Your task to perform on an android device: choose inbox layout in the gmail app Image 0: 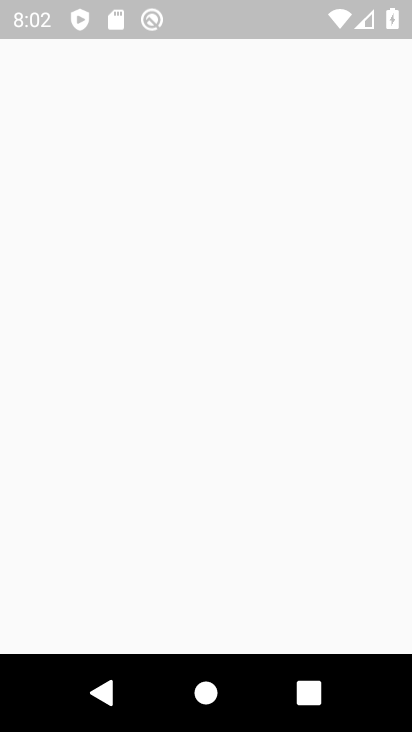
Step 0: drag from (229, 499) to (255, 108)
Your task to perform on an android device: choose inbox layout in the gmail app Image 1: 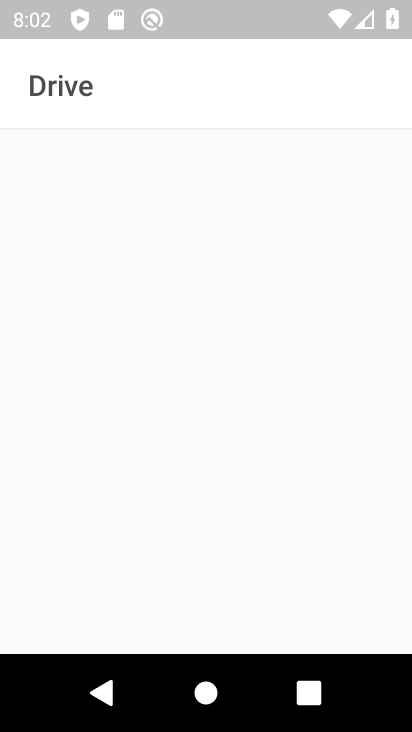
Step 1: press home button
Your task to perform on an android device: choose inbox layout in the gmail app Image 2: 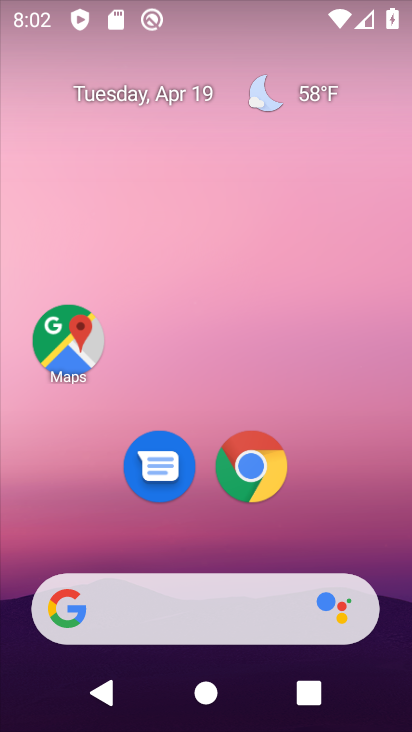
Step 2: drag from (289, 558) to (291, 67)
Your task to perform on an android device: choose inbox layout in the gmail app Image 3: 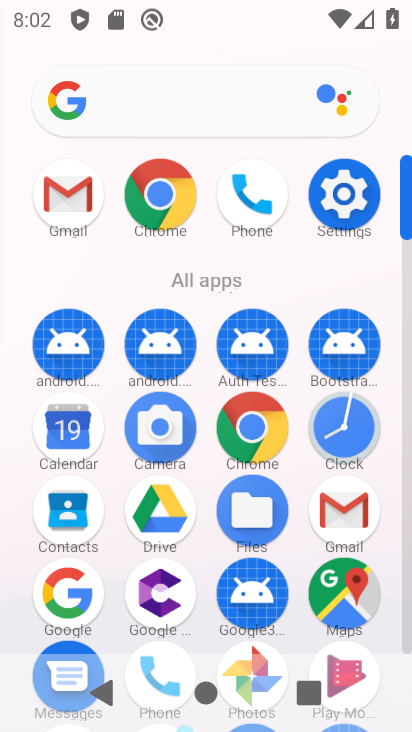
Step 3: click (58, 183)
Your task to perform on an android device: choose inbox layout in the gmail app Image 4: 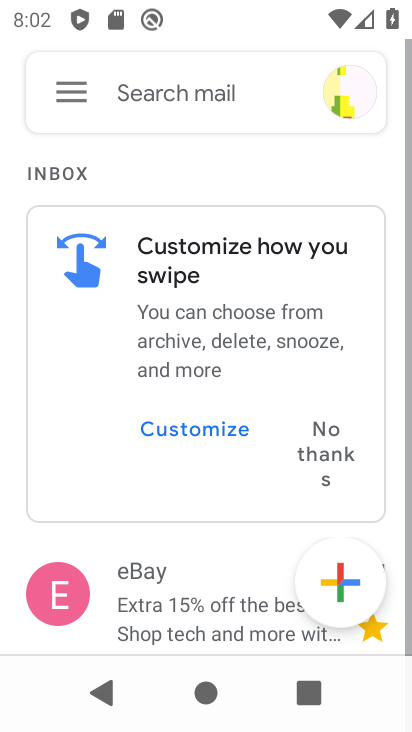
Step 4: click (52, 78)
Your task to perform on an android device: choose inbox layout in the gmail app Image 5: 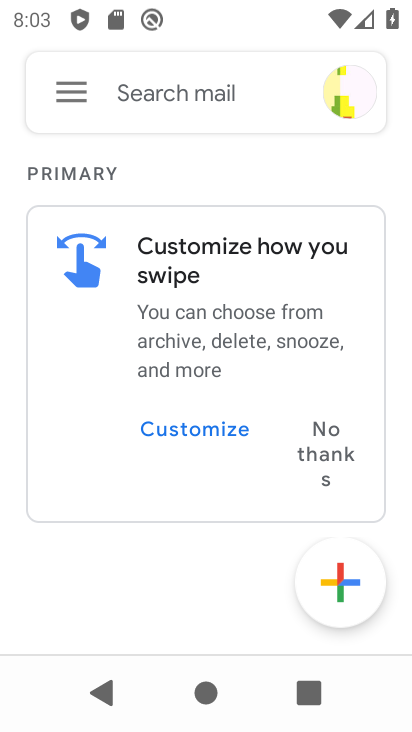
Step 5: click (77, 87)
Your task to perform on an android device: choose inbox layout in the gmail app Image 6: 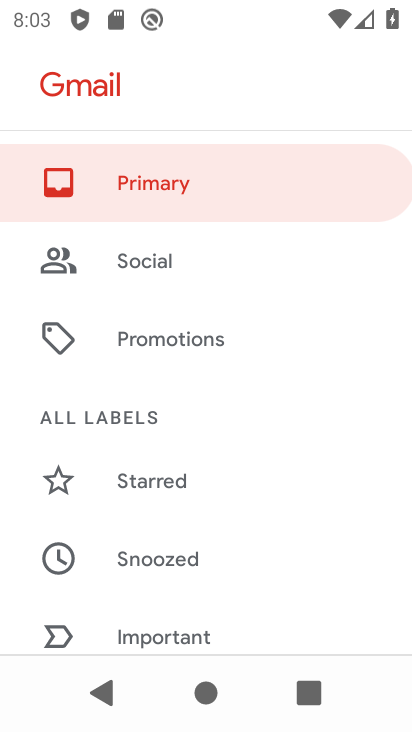
Step 6: drag from (279, 577) to (237, 20)
Your task to perform on an android device: choose inbox layout in the gmail app Image 7: 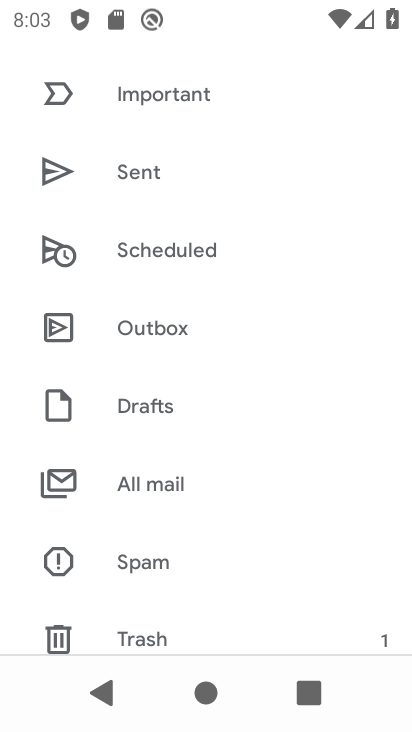
Step 7: drag from (249, 521) to (264, 158)
Your task to perform on an android device: choose inbox layout in the gmail app Image 8: 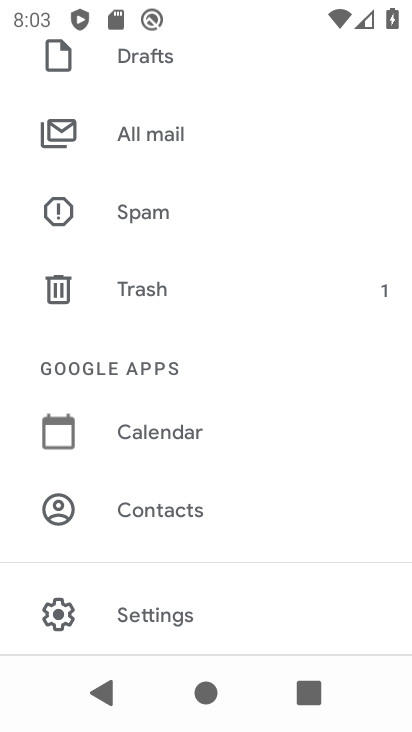
Step 8: click (182, 618)
Your task to perform on an android device: choose inbox layout in the gmail app Image 9: 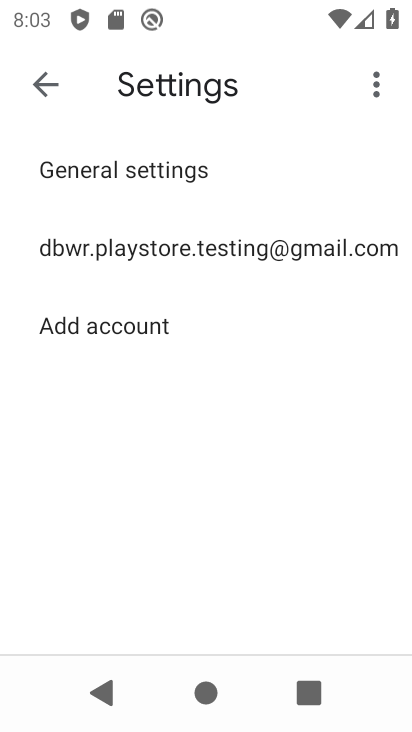
Step 9: click (243, 251)
Your task to perform on an android device: choose inbox layout in the gmail app Image 10: 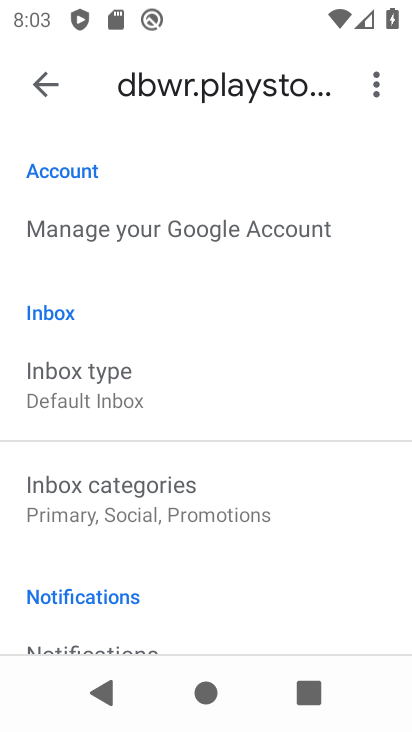
Step 10: click (117, 397)
Your task to perform on an android device: choose inbox layout in the gmail app Image 11: 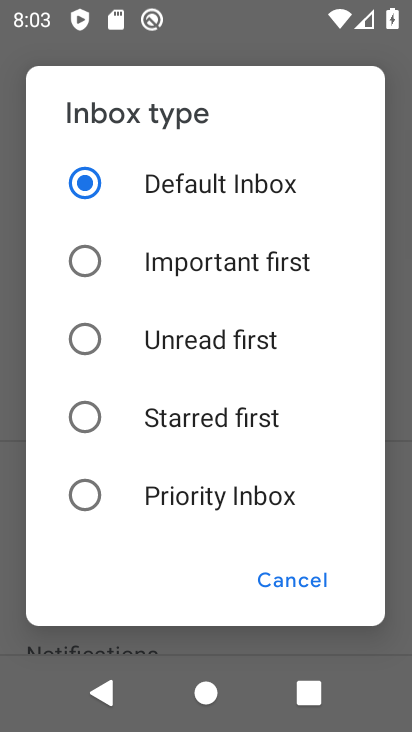
Step 11: click (140, 341)
Your task to perform on an android device: choose inbox layout in the gmail app Image 12: 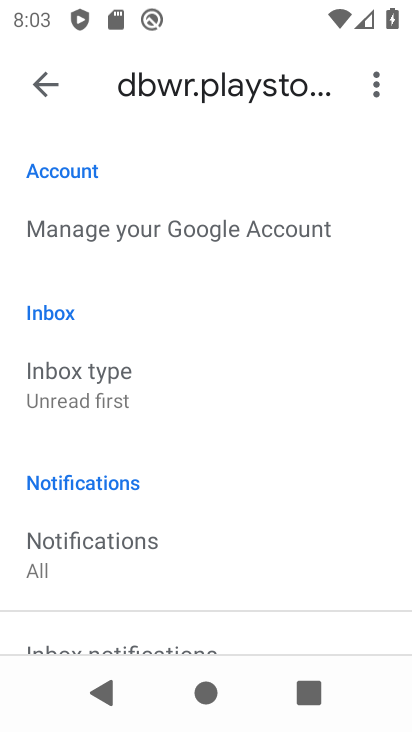
Step 12: task complete